Your task to perform on an android device: add a label to a message in the gmail app Image 0: 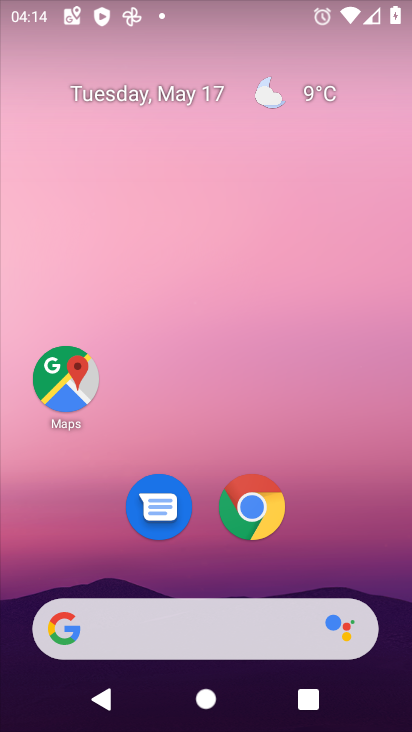
Step 0: drag from (298, 357) to (145, 22)
Your task to perform on an android device: add a label to a message in the gmail app Image 1: 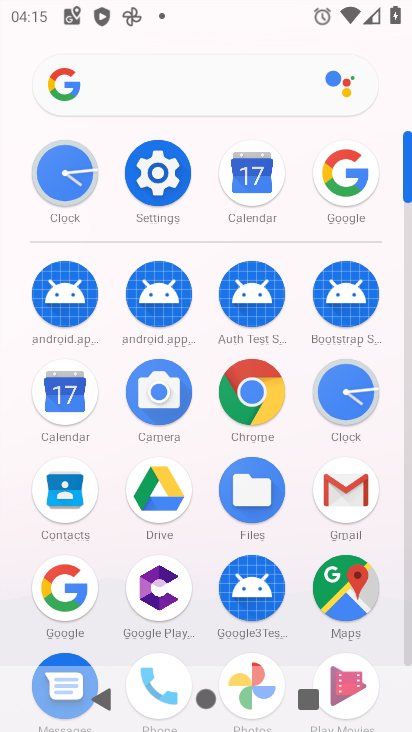
Step 1: click (339, 500)
Your task to perform on an android device: add a label to a message in the gmail app Image 2: 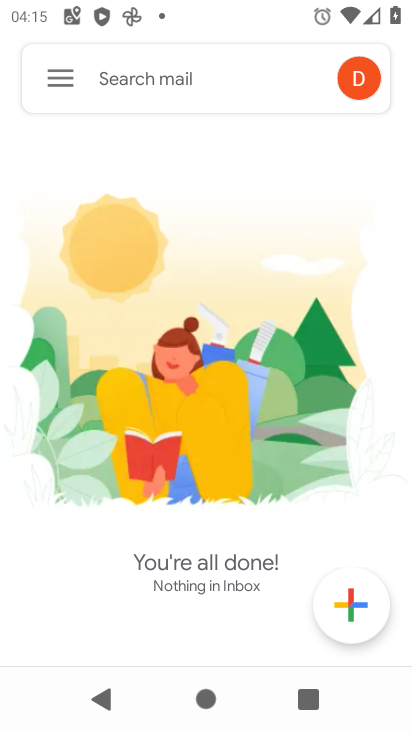
Step 2: click (54, 90)
Your task to perform on an android device: add a label to a message in the gmail app Image 3: 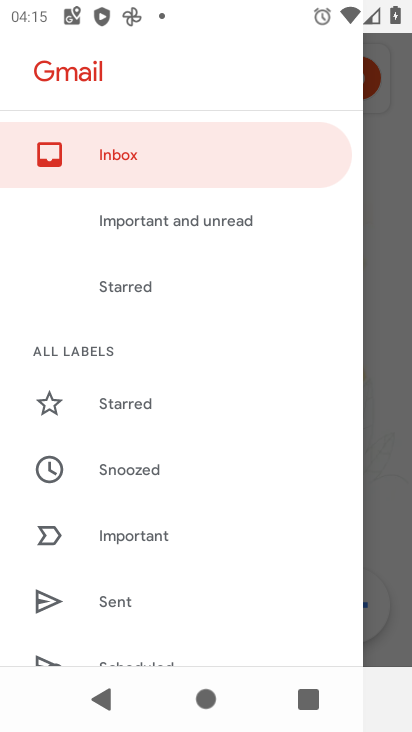
Step 3: drag from (197, 518) to (179, 76)
Your task to perform on an android device: add a label to a message in the gmail app Image 4: 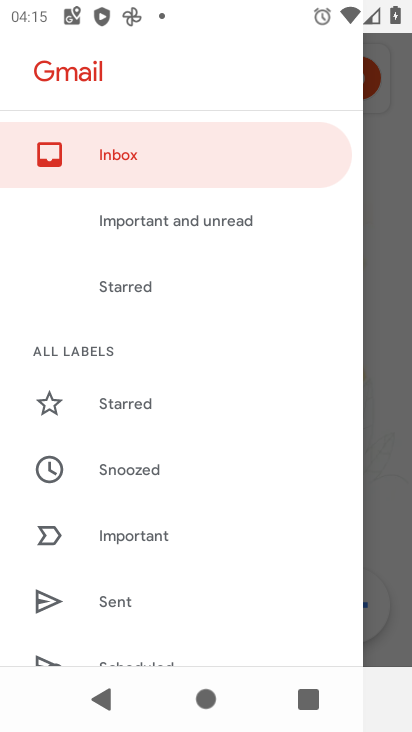
Step 4: drag from (148, 539) to (168, 130)
Your task to perform on an android device: add a label to a message in the gmail app Image 5: 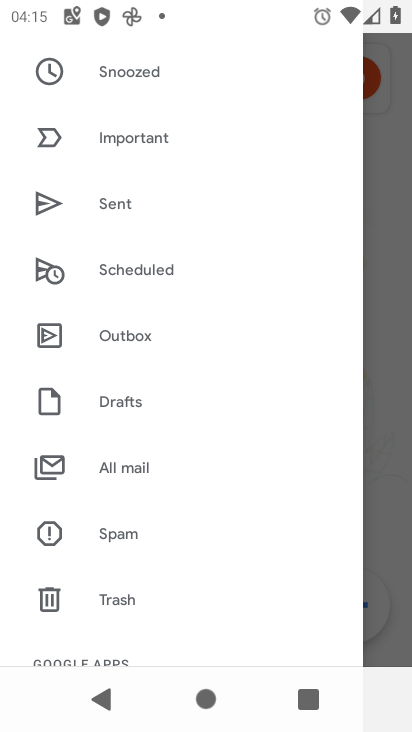
Step 5: click (151, 459)
Your task to perform on an android device: add a label to a message in the gmail app Image 6: 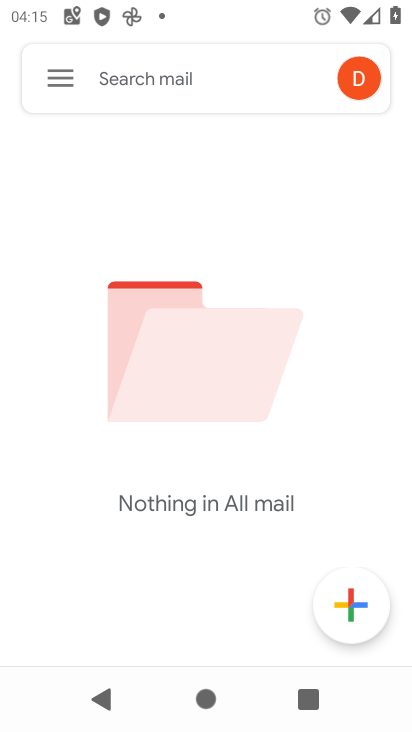
Step 6: task complete